Your task to perform on an android device: turn vacation reply on in the gmail app Image 0: 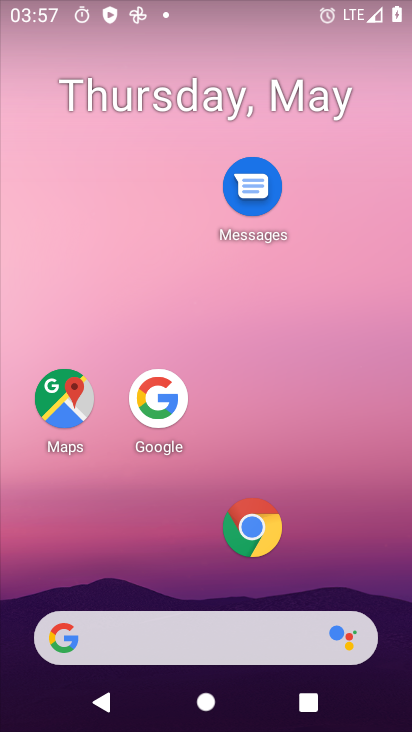
Step 0: drag from (215, 573) to (216, 226)
Your task to perform on an android device: turn vacation reply on in the gmail app Image 1: 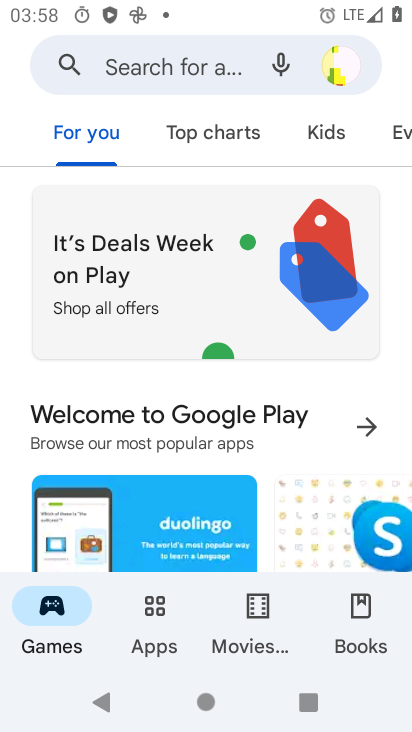
Step 1: press home button
Your task to perform on an android device: turn vacation reply on in the gmail app Image 2: 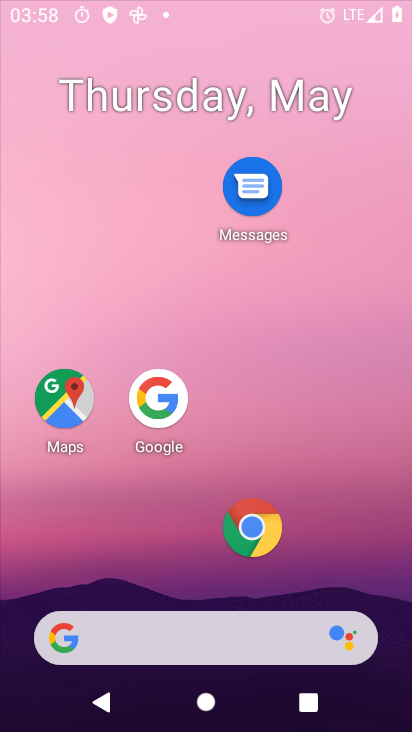
Step 2: drag from (218, 568) to (185, 40)
Your task to perform on an android device: turn vacation reply on in the gmail app Image 3: 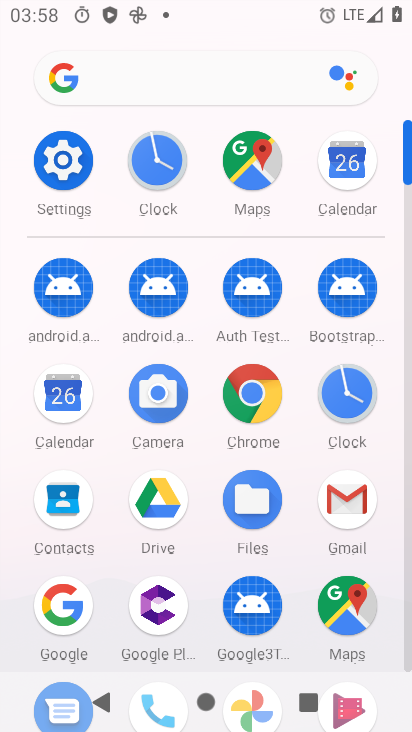
Step 3: click (347, 484)
Your task to perform on an android device: turn vacation reply on in the gmail app Image 4: 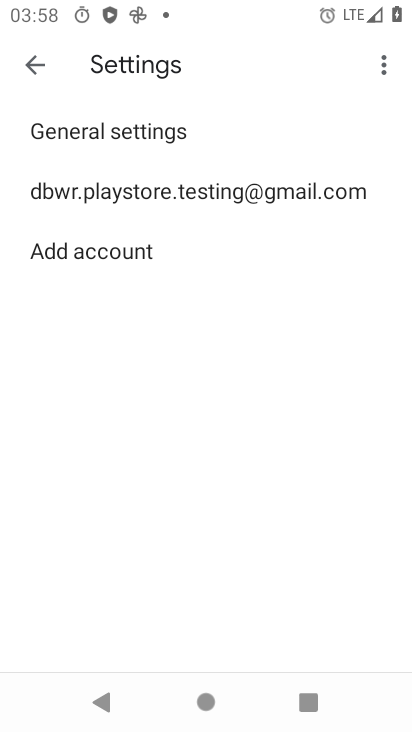
Step 4: click (184, 188)
Your task to perform on an android device: turn vacation reply on in the gmail app Image 5: 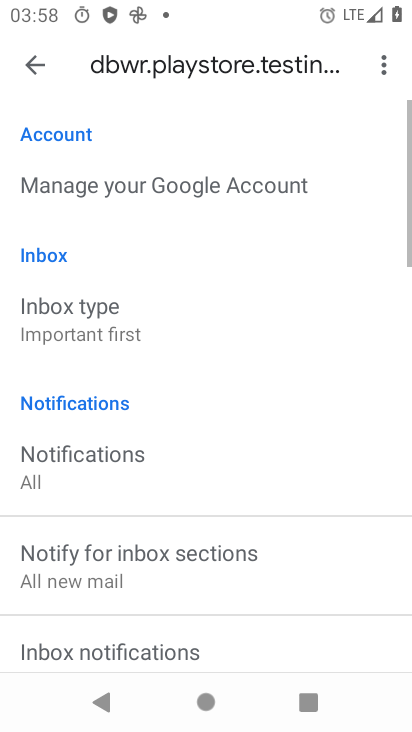
Step 5: drag from (169, 538) to (276, 60)
Your task to perform on an android device: turn vacation reply on in the gmail app Image 6: 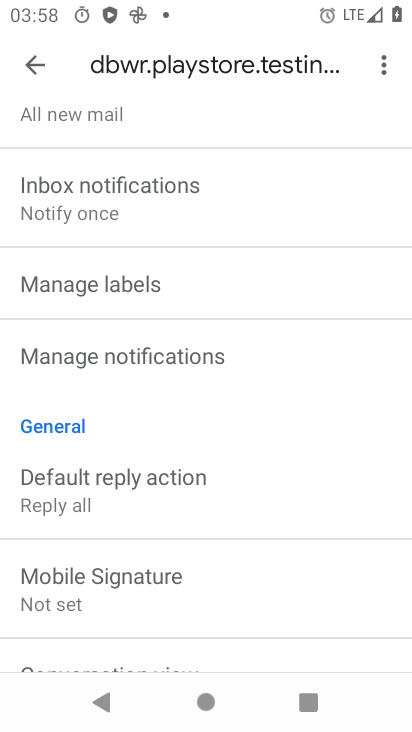
Step 6: drag from (188, 567) to (281, 76)
Your task to perform on an android device: turn vacation reply on in the gmail app Image 7: 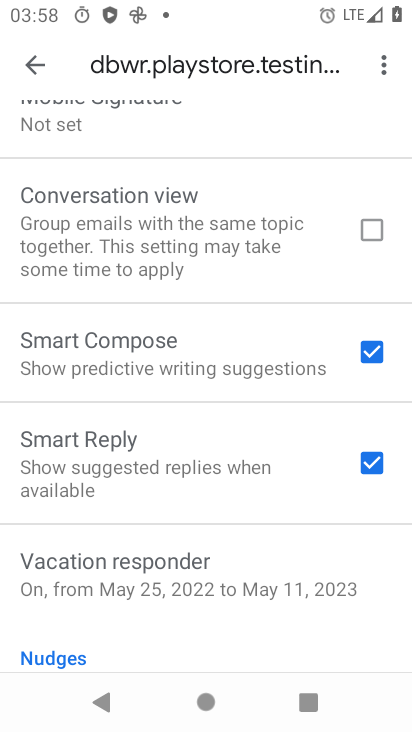
Step 7: click (160, 563)
Your task to perform on an android device: turn vacation reply on in the gmail app Image 8: 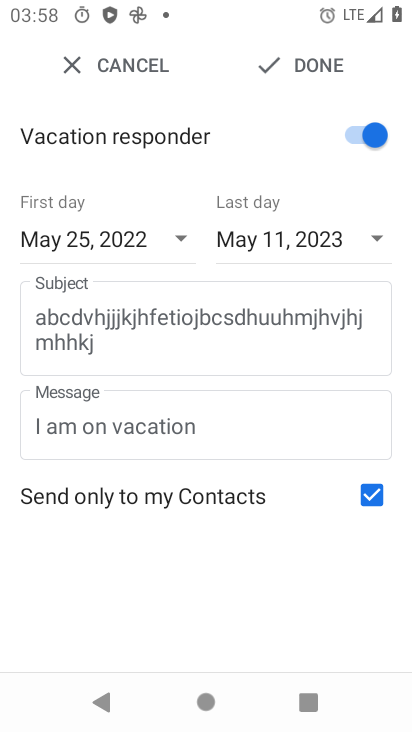
Step 8: click (298, 62)
Your task to perform on an android device: turn vacation reply on in the gmail app Image 9: 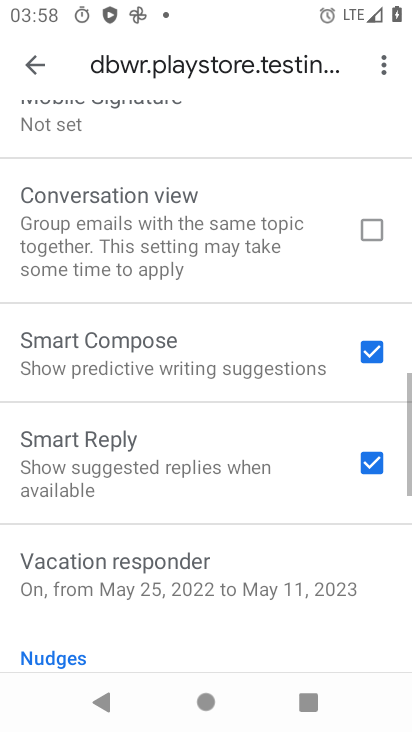
Step 9: task complete